Your task to perform on an android device: toggle sleep mode Image 0: 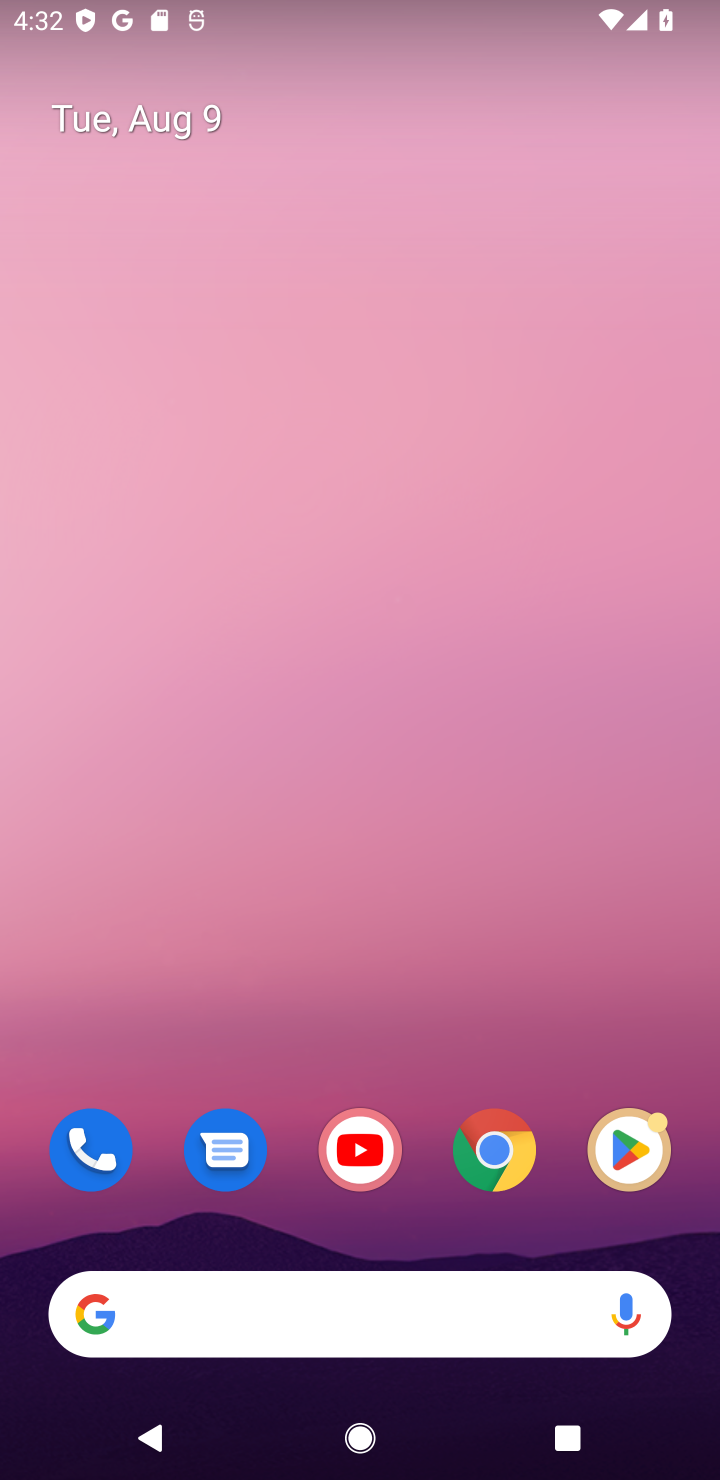
Step 0: drag from (421, 1229) to (382, 13)
Your task to perform on an android device: toggle sleep mode Image 1: 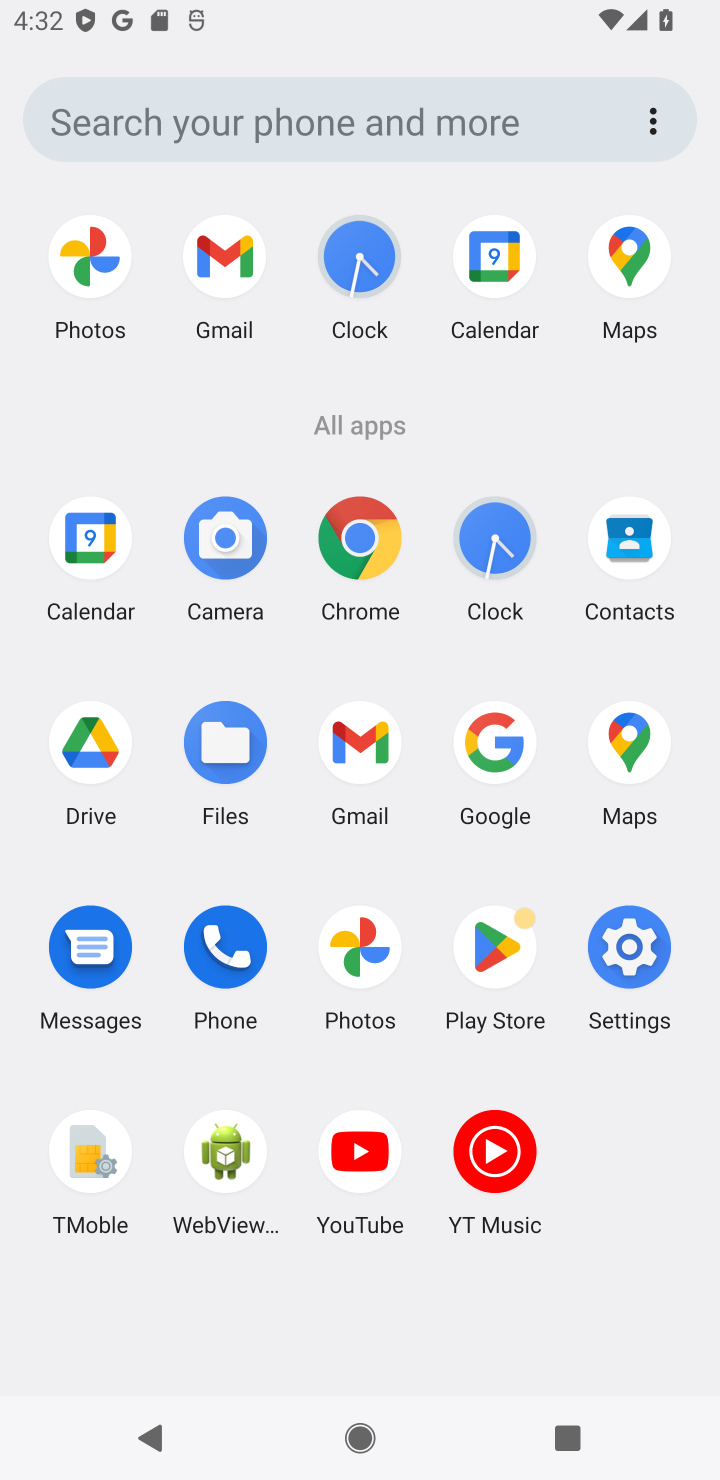
Step 1: click (649, 962)
Your task to perform on an android device: toggle sleep mode Image 2: 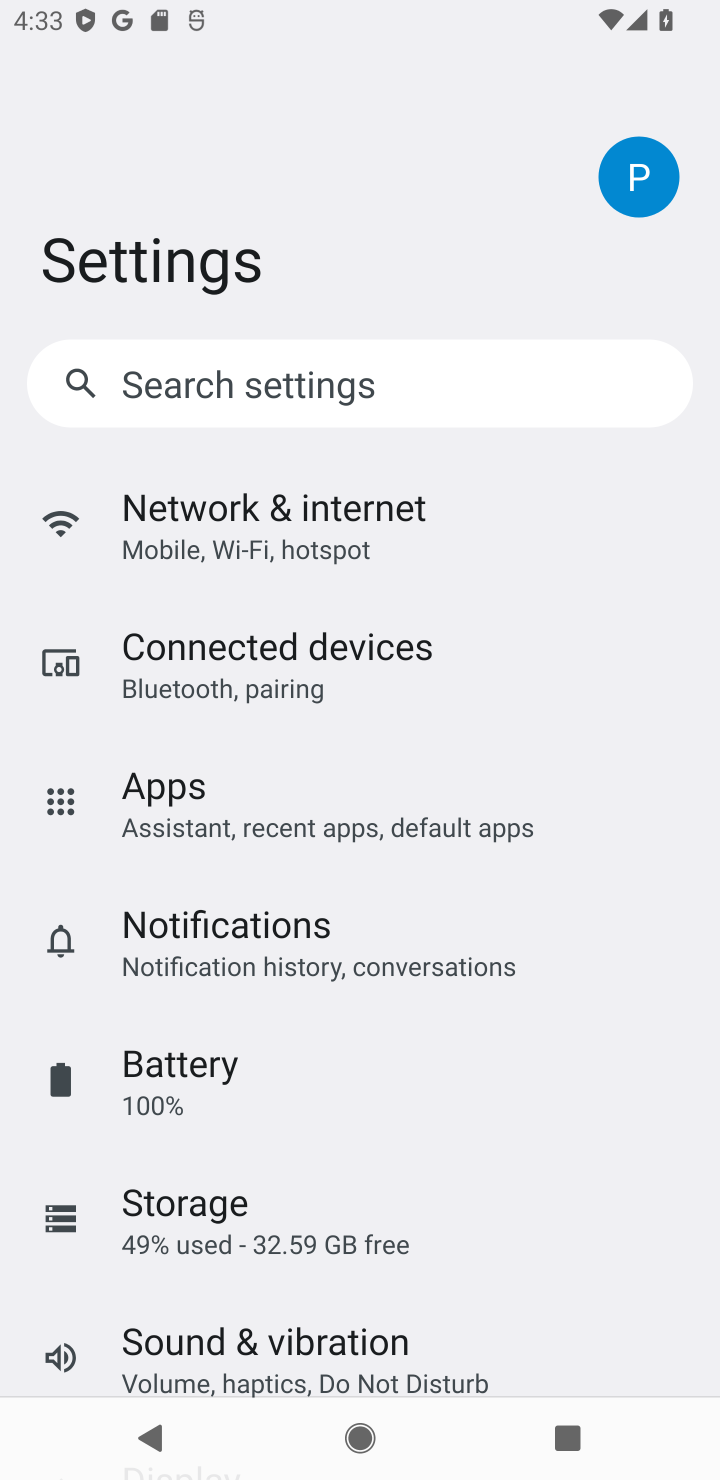
Step 2: drag from (404, 1234) to (405, 671)
Your task to perform on an android device: toggle sleep mode Image 3: 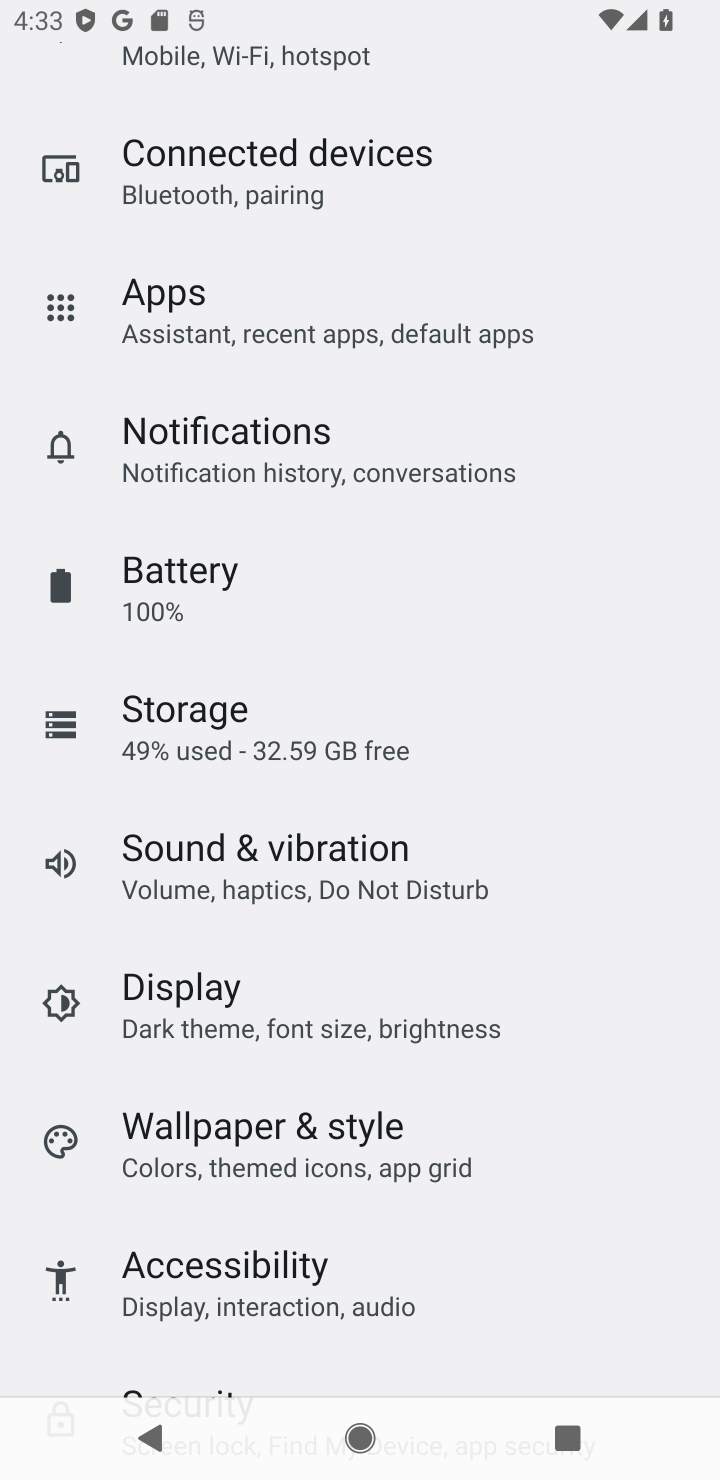
Step 3: click (292, 988)
Your task to perform on an android device: toggle sleep mode Image 4: 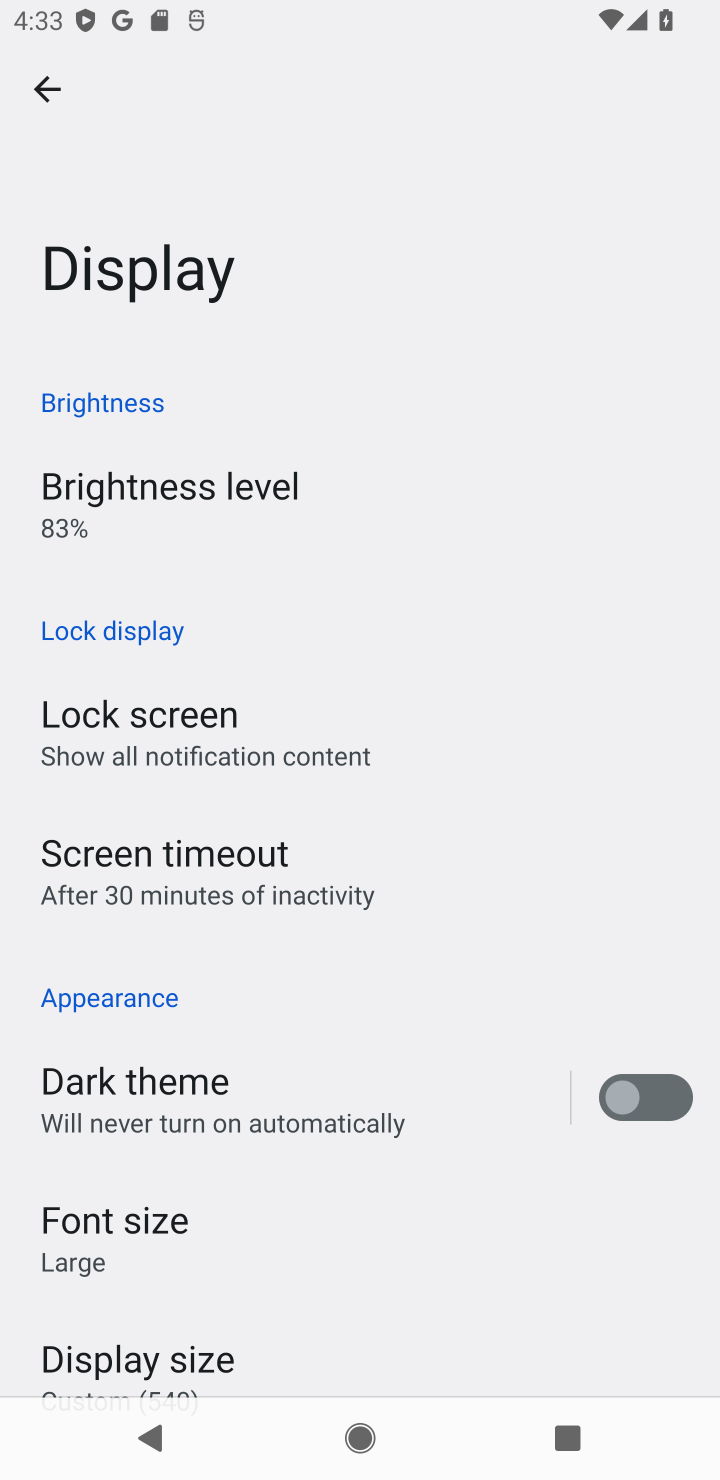
Step 4: task complete